Your task to perform on an android device: stop showing notifications on the lock screen Image 0: 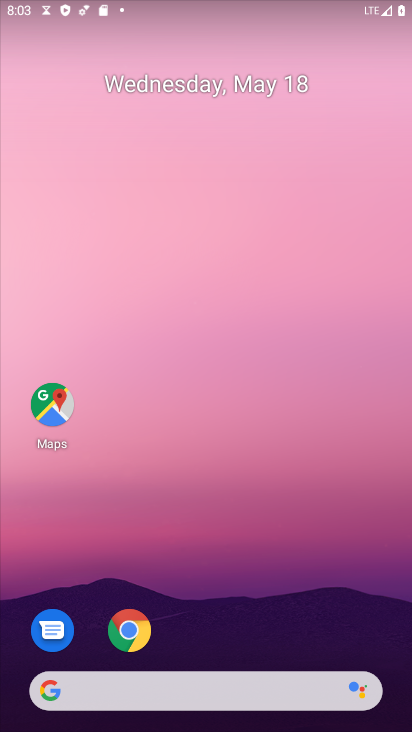
Step 0: drag from (316, 541) to (331, 110)
Your task to perform on an android device: stop showing notifications on the lock screen Image 1: 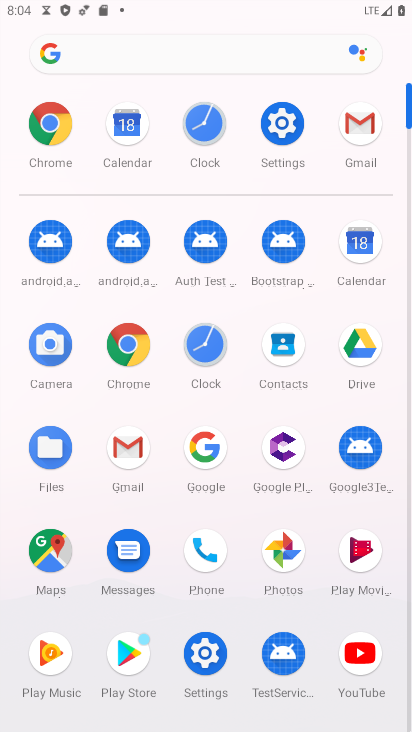
Step 1: click (286, 112)
Your task to perform on an android device: stop showing notifications on the lock screen Image 2: 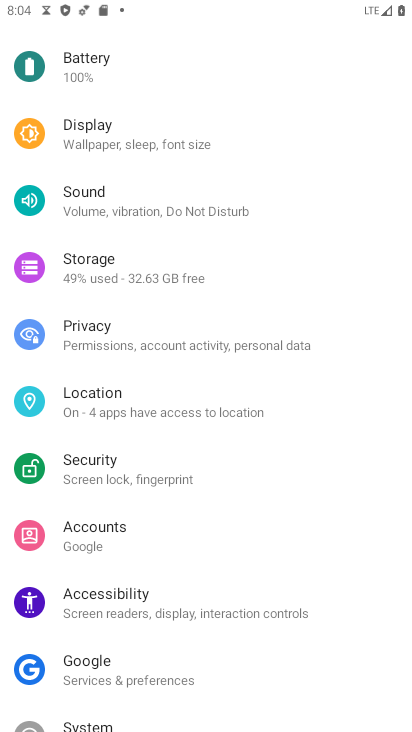
Step 2: drag from (167, 326) to (133, 589)
Your task to perform on an android device: stop showing notifications on the lock screen Image 3: 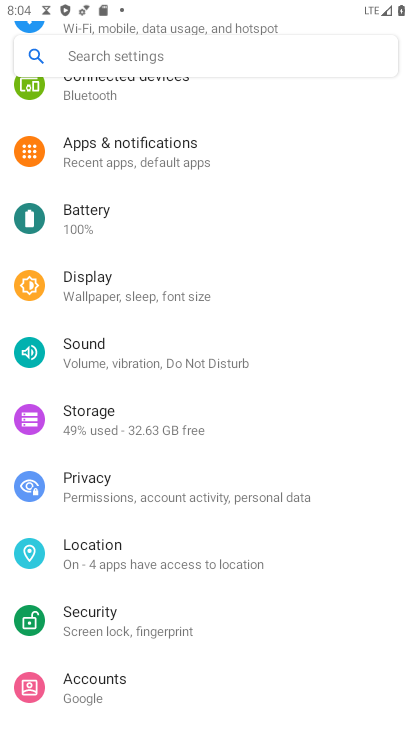
Step 3: click (160, 151)
Your task to perform on an android device: stop showing notifications on the lock screen Image 4: 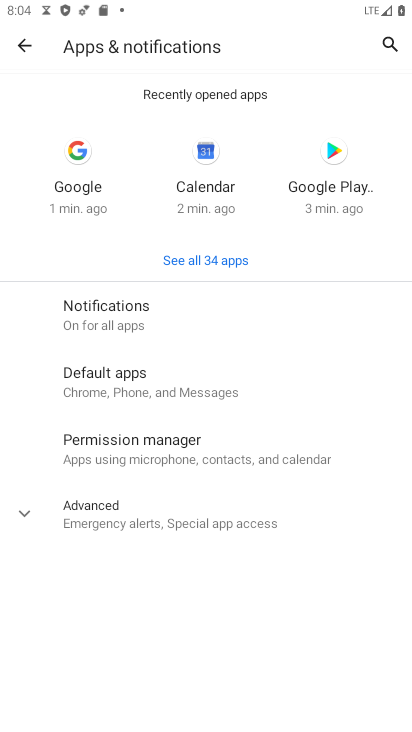
Step 4: click (147, 322)
Your task to perform on an android device: stop showing notifications on the lock screen Image 5: 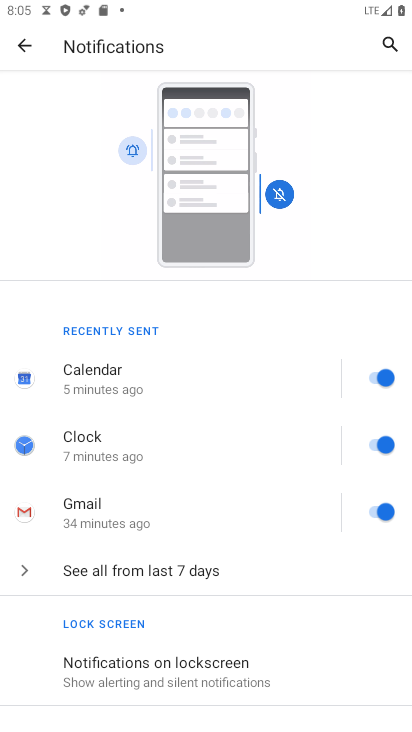
Step 5: drag from (103, 629) to (118, 367)
Your task to perform on an android device: stop showing notifications on the lock screen Image 6: 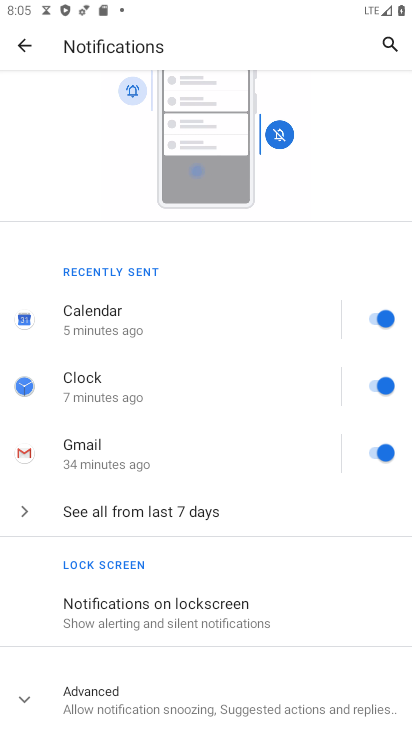
Step 6: click (113, 611)
Your task to perform on an android device: stop showing notifications on the lock screen Image 7: 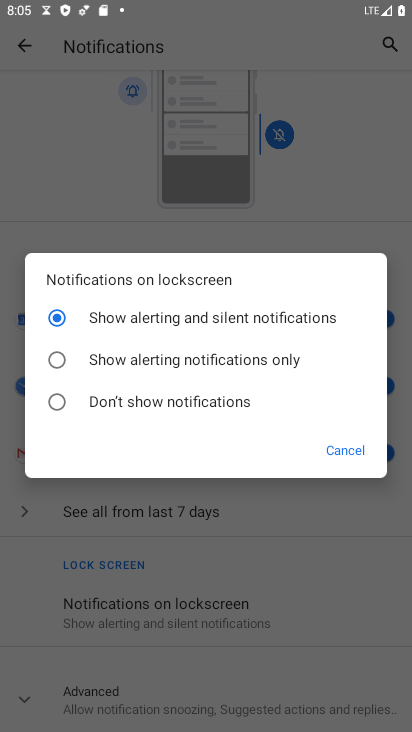
Step 7: click (94, 400)
Your task to perform on an android device: stop showing notifications on the lock screen Image 8: 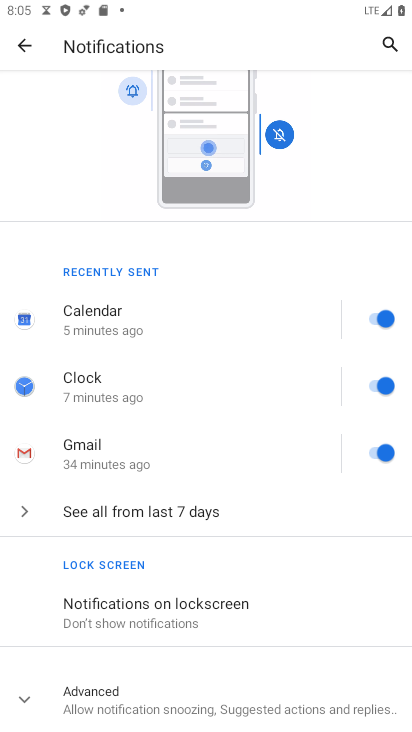
Step 8: task complete